Your task to perform on an android device: delete a single message in the gmail app Image 0: 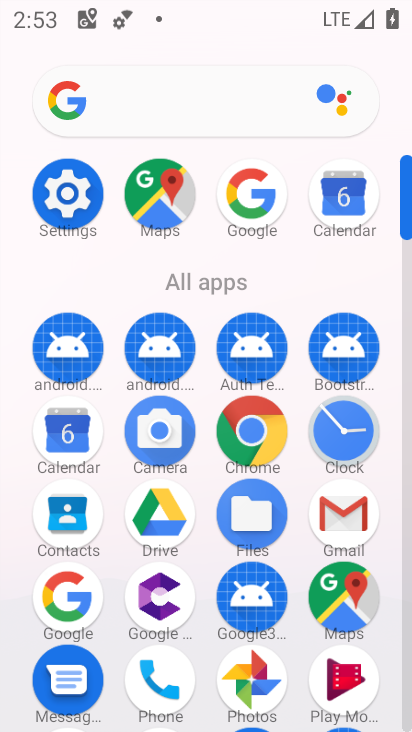
Step 0: click (349, 516)
Your task to perform on an android device: delete a single message in the gmail app Image 1: 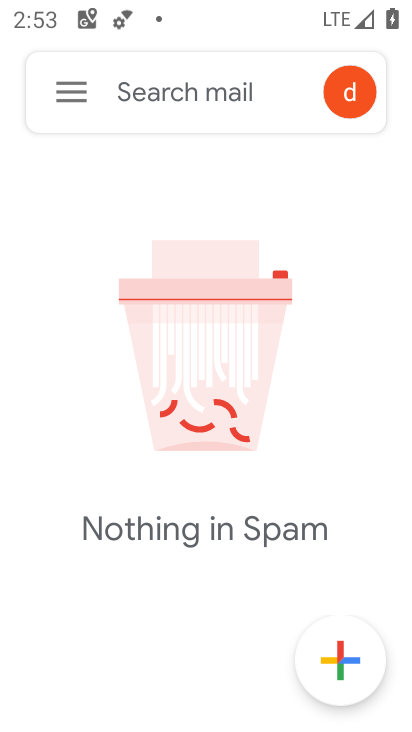
Step 1: click (66, 93)
Your task to perform on an android device: delete a single message in the gmail app Image 2: 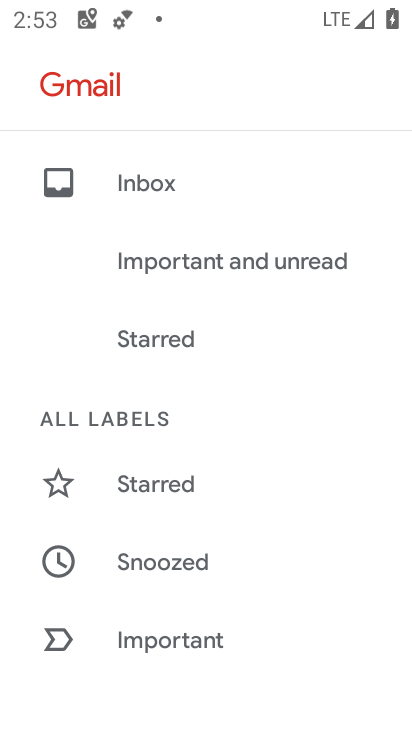
Step 2: click (133, 188)
Your task to perform on an android device: delete a single message in the gmail app Image 3: 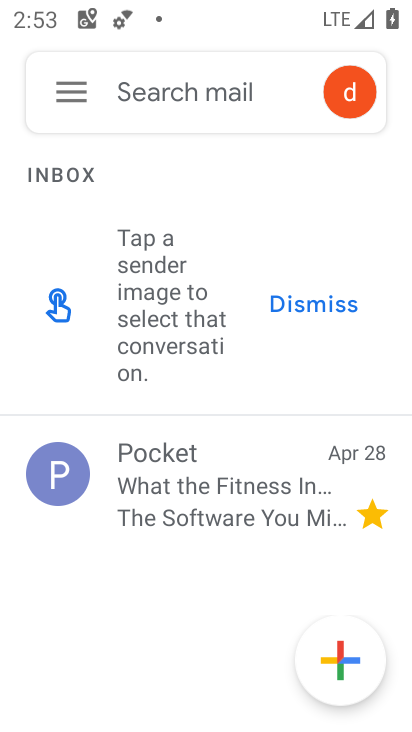
Step 3: click (66, 95)
Your task to perform on an android device: delete a single message in the gmail app Image 4: 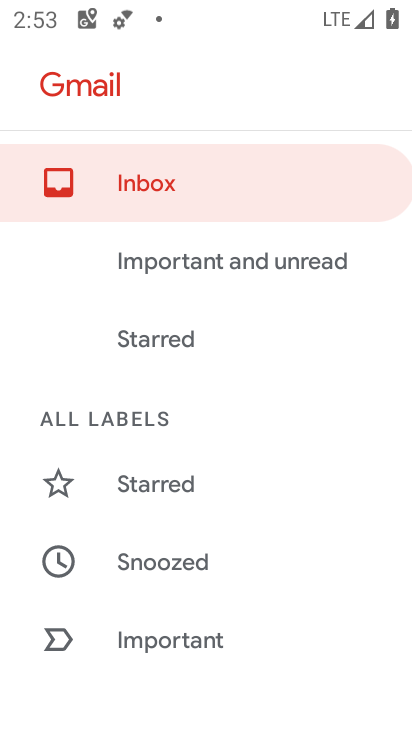
Step 4: click (130, 178)
Your task to perform on an android device: delete a single message in the gmail app Image 5: 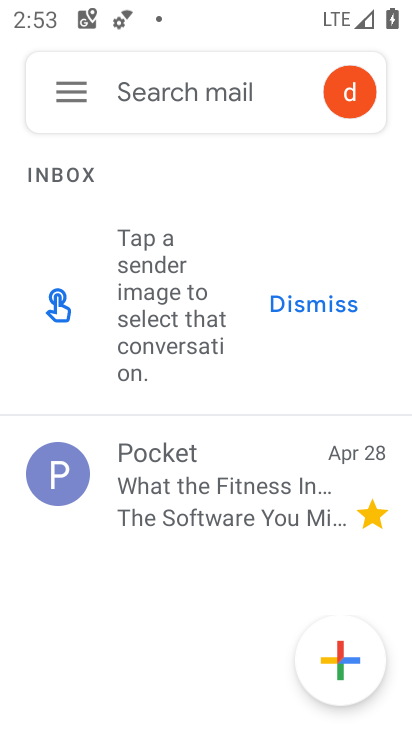
Step 5: click (256, 472)
Your task to perform on an android device: delete a single message in the gmail app Image 6: 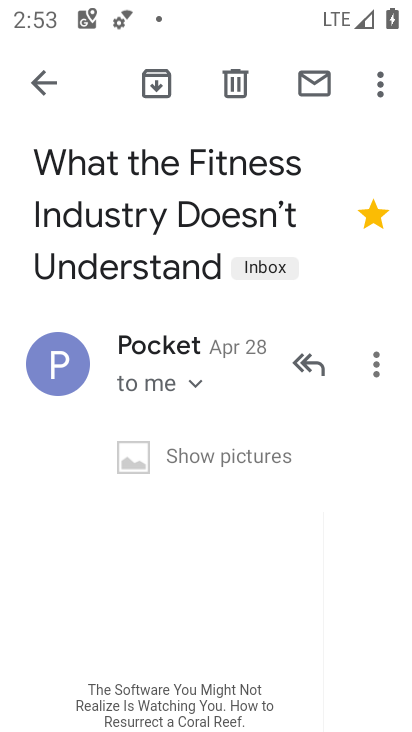
Step 6: click (226, 83)
Your task to perform on an android device: delete a single message in the gmail app Image 7: 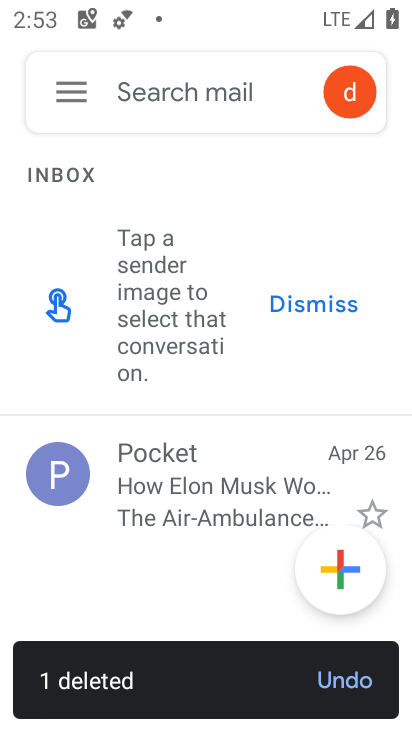
Step 7: task complete